Your task to perform on an android device: Open the Play Movies app and select the watchlist tab. Image 0: 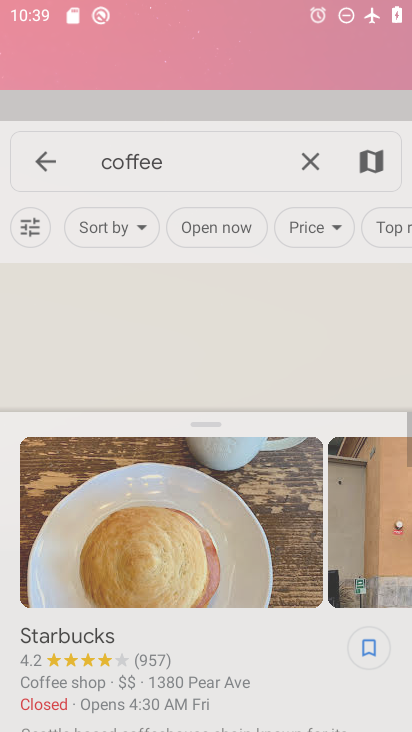
Step 0: click (184, 500)
Your task to perform on an android device: Open the Play Movies app and select the watchlist tab. Image 1: 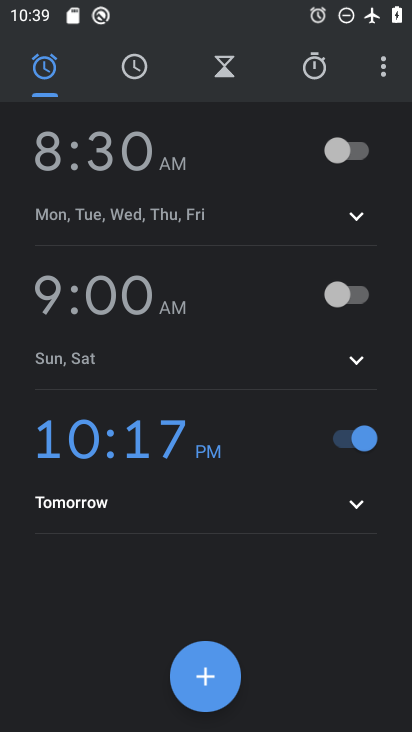
Step 1: press home button
Your task to perform on an android device: Open the Play Movies app and select the watchlist tab. Image 2: 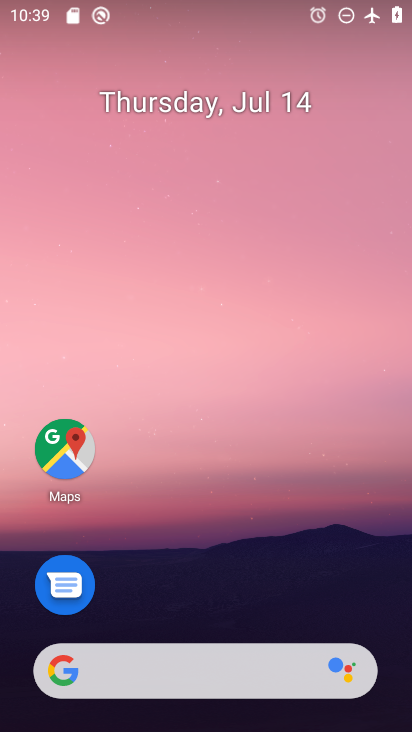
Step 2: drag from (176, 614) to (266, 11)
Your task to perform on an android device: Open the Play Movies app and select the watchlist tab. Image 3: 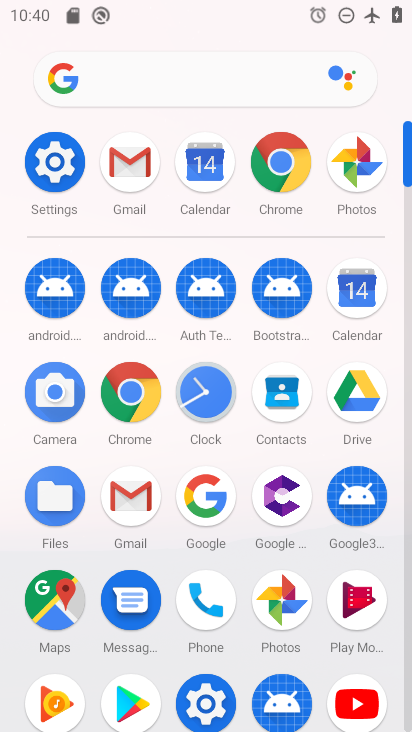
Step 3: click (335, 604)
Your task to perform on an android device: Open the Play Movies app and select the watchlist tab. Image 4: 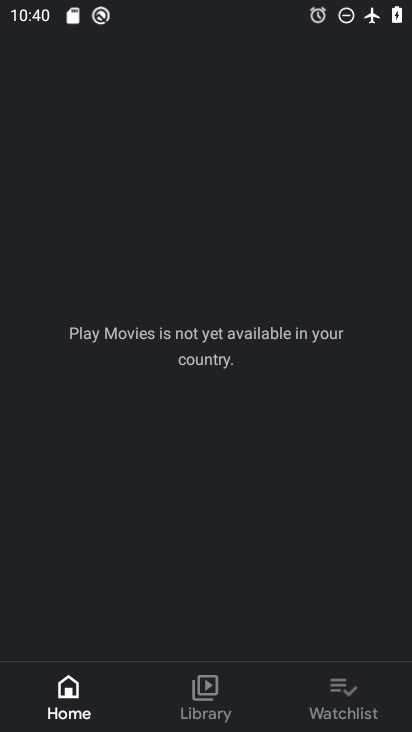
Step 4: click (321, 700)
Your task to perform on an android device: Open the Play Movies app and select the watchlist tab. Image 5: 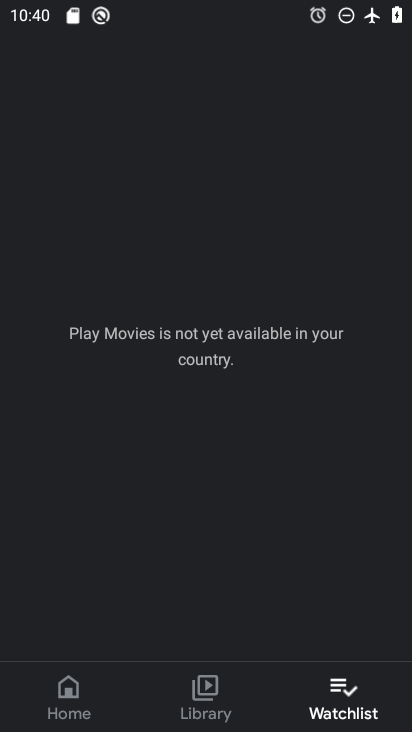
Step 5: task complete